Your task to perform on an android device: turn on the 24-hour format for clock Image 0: 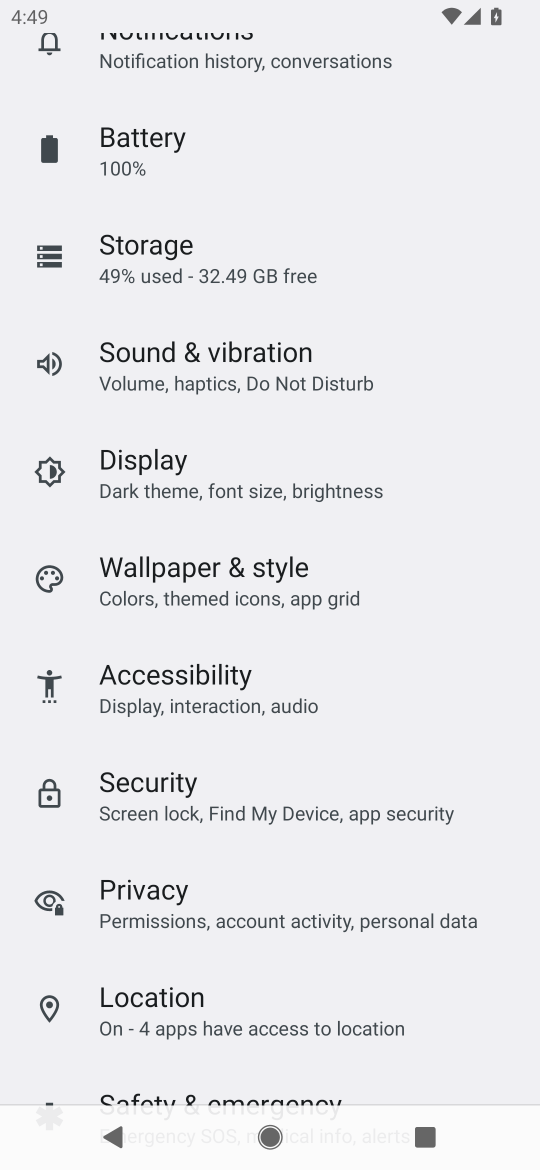
Step 0: press home button
Your task to perform on an android device: turn on the 24-hour format for clock Image 1: 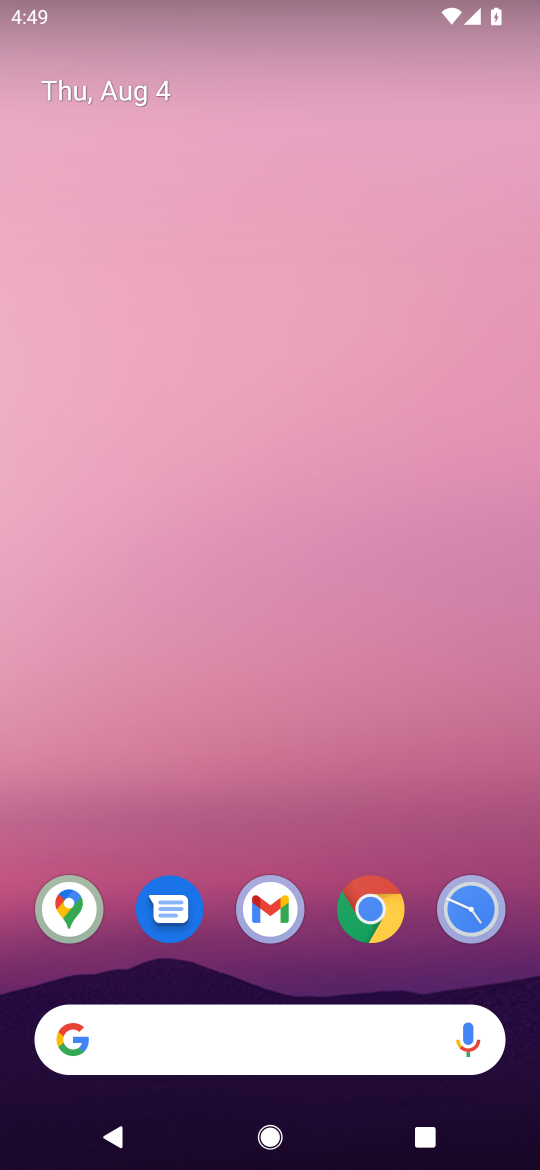
Step 1: drag from (340, 783) to (335, 556)
Your task to perform on an android device: turn on the 24-hour format for clock Image 2: 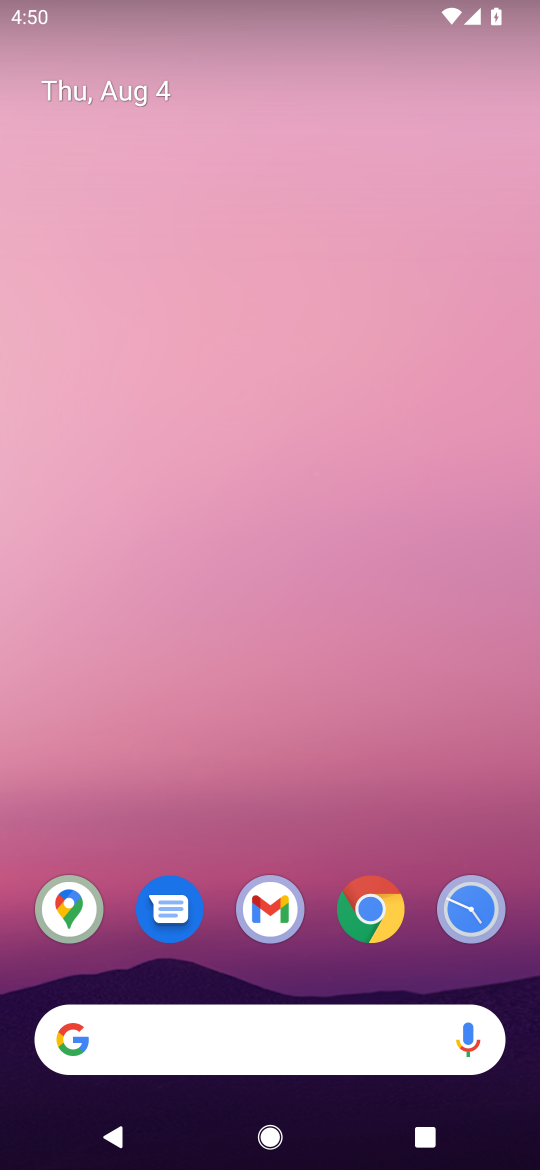
Step 2: press home button
Your task to perform on an android device: turn on the 24-hour format for clock Image 3: 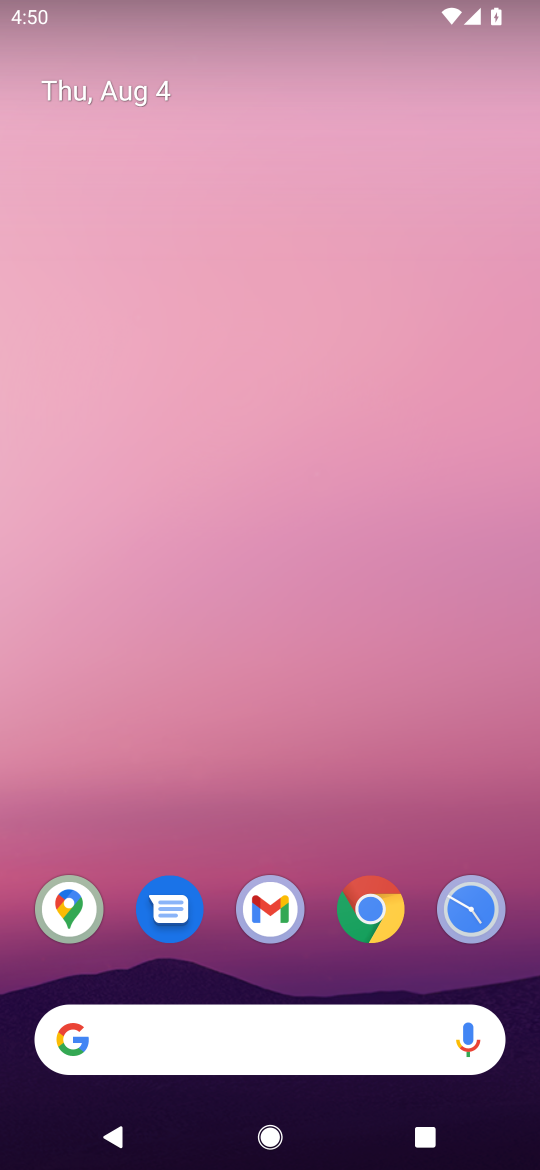
Step 3: drag from (379, 799) to (277, 77)
Your task to perform on an android device: turn on the 24-hour format for clock Image 4: 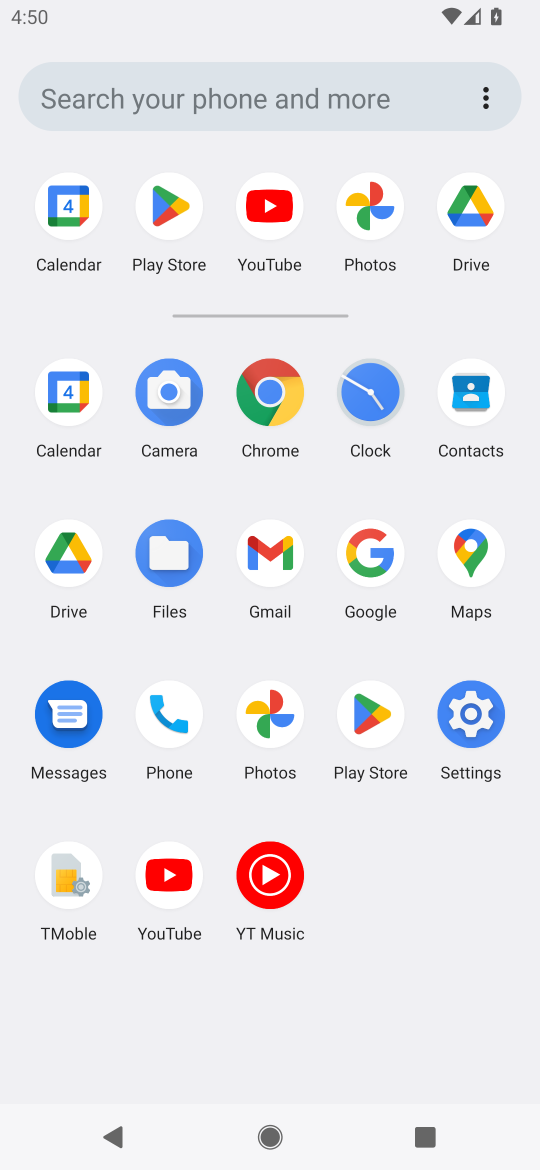
Step 4: click (393, 372)
Your task to perform on an android device: turn on the 24-hour format for clock Image 5: 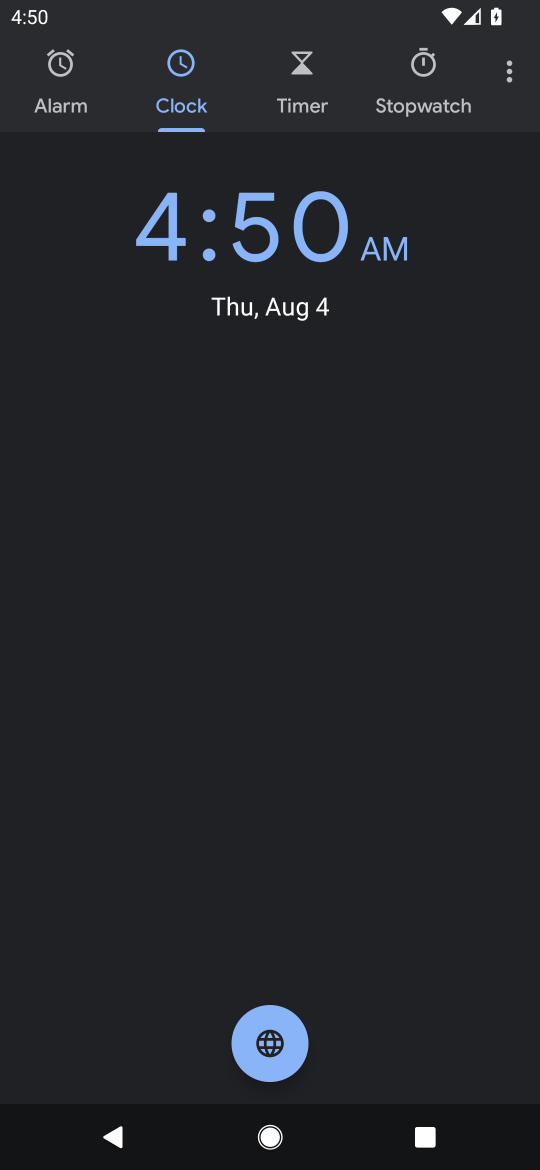
Step 5: click (507, 76)
Your task to perform on an android device: turn on the 24-hour format for clock Image 6: 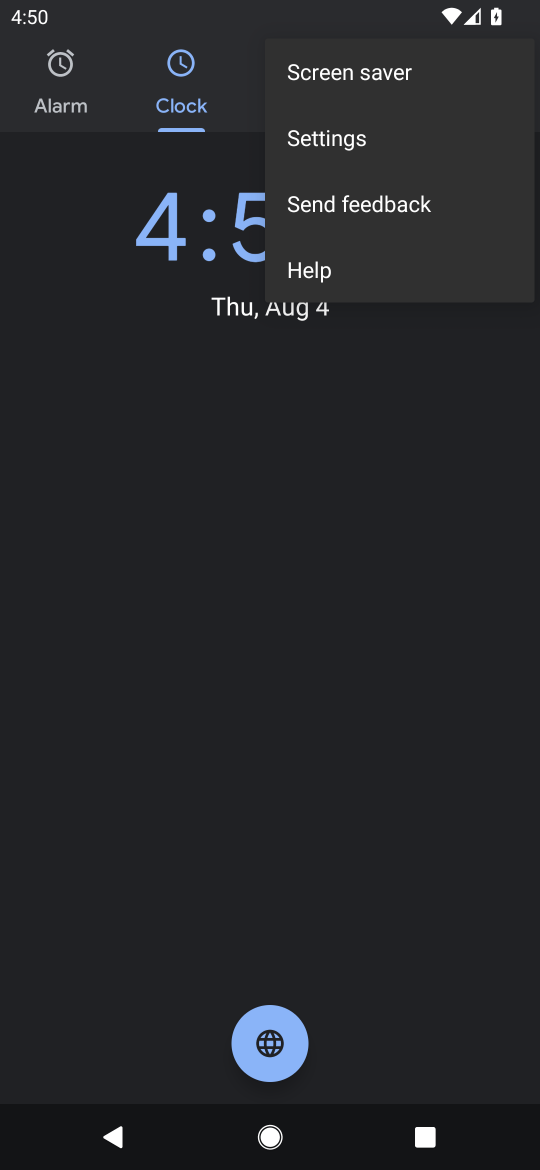
Step 6: click (358, 135)
Your task to perform on an android device: turn on the 24-hour format for clock Image 7: 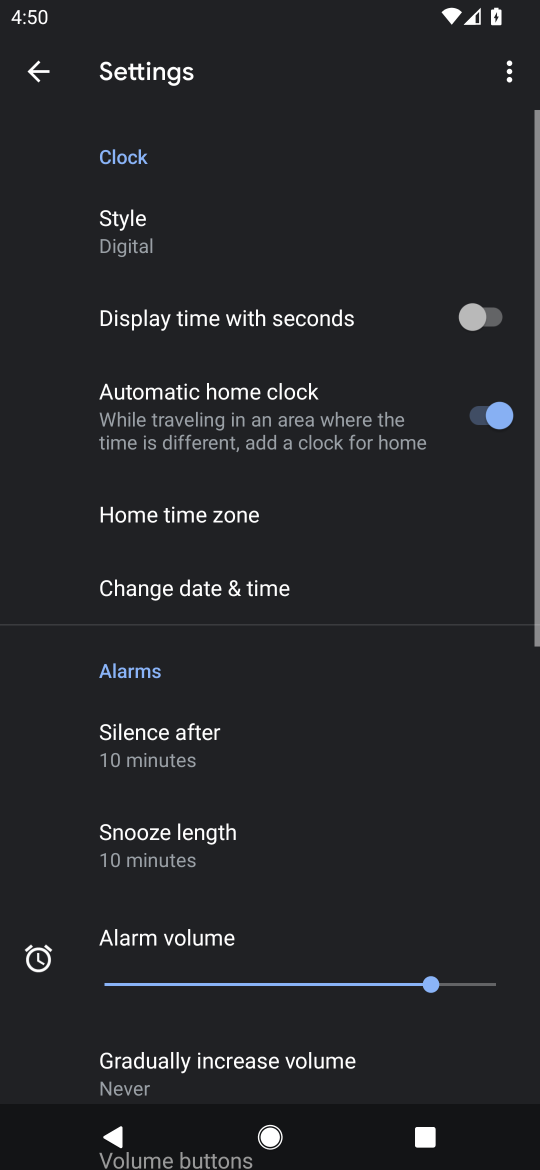
Step 7: click (214, 581)
Your task to perform on an android device: turn on the 24-hour format for clock Image 8: 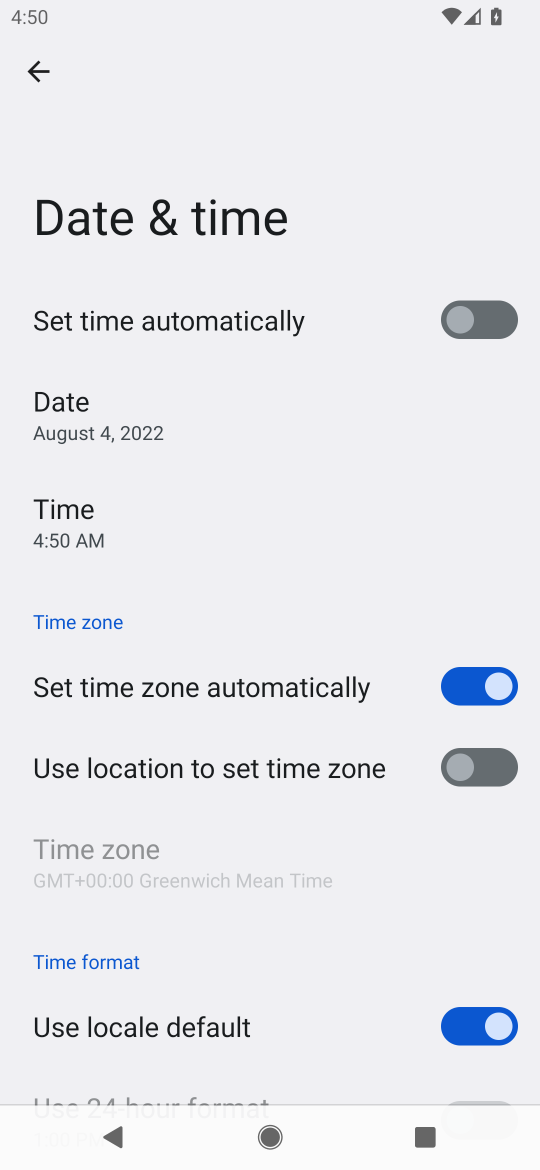
Step 8: click (450, 1007)
Your task to perform on an android device: turn on the 24-hour format for clock Image 9: 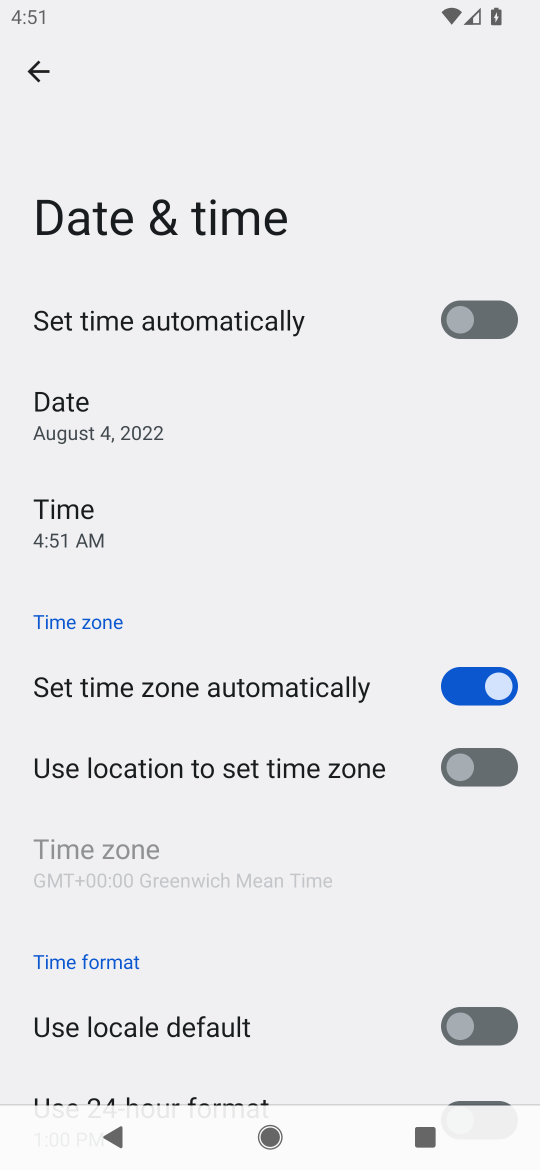
Step 9: drag from (351, 934) to (314, 381)
Your task to perform on an android device: turn on the 24-hour format for clock Image 10: 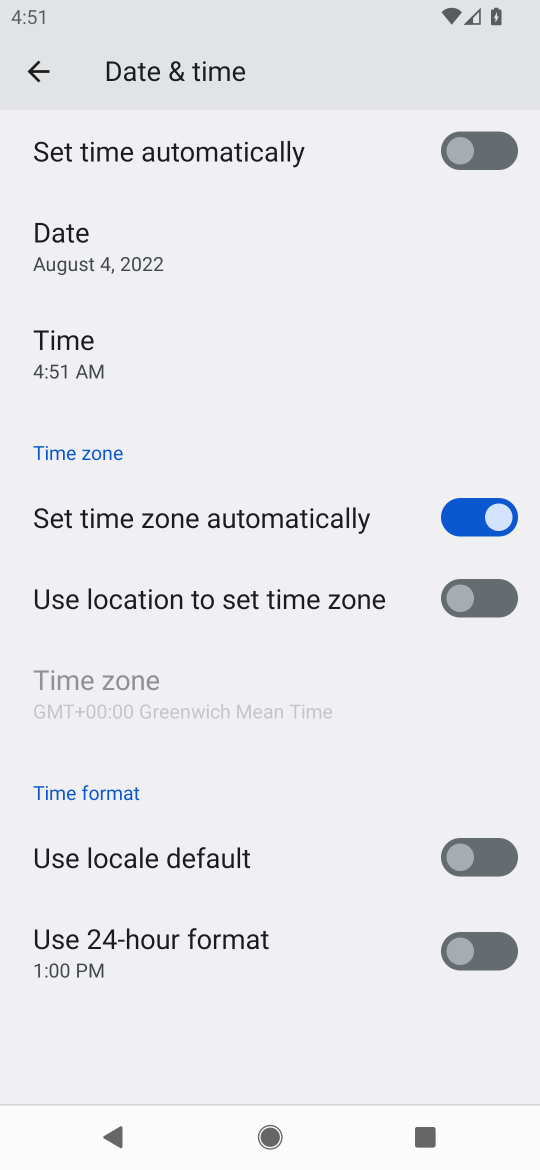
Step 10: click (494, 937)
Your task to perform on an android device: turn on the 24-hour format for clock Image 11: 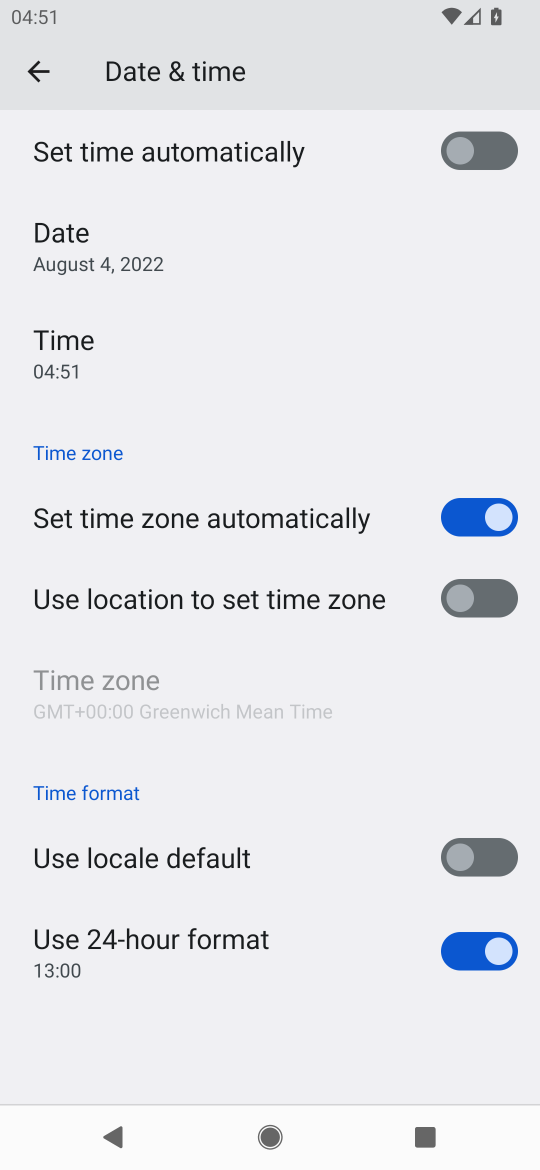
Step 11: task complete